Your task to perform on an android device: toggle sleep mode Image 0: 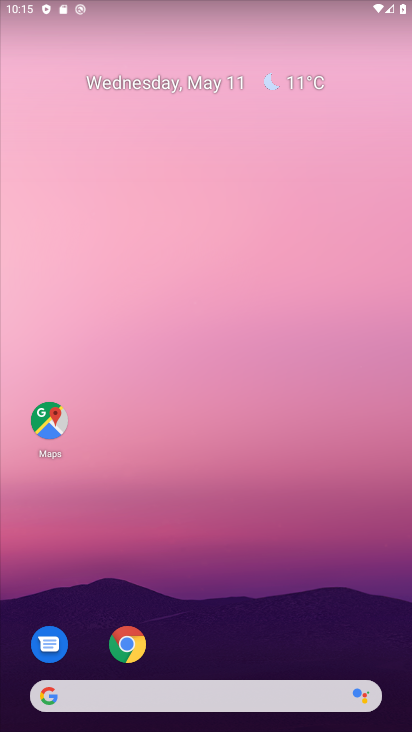
Step 0: drag from (354, 657) to (1, 161)
Your task to perform on an android device: toggle sleep mode Image 1: 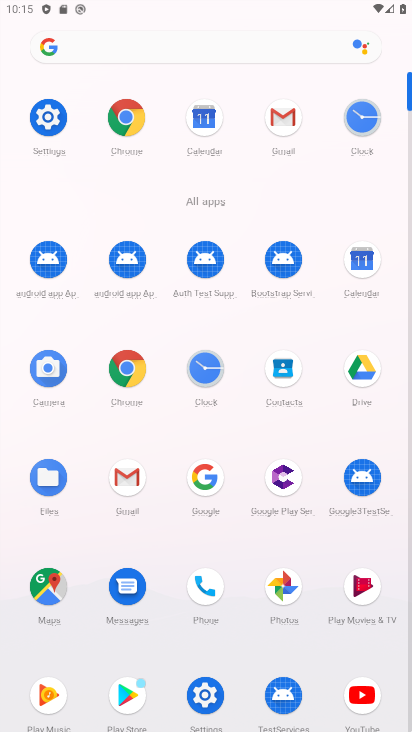
Step 1: click (47, 156)
Your task to perform on an android device: toggle sleep mode Image 2: 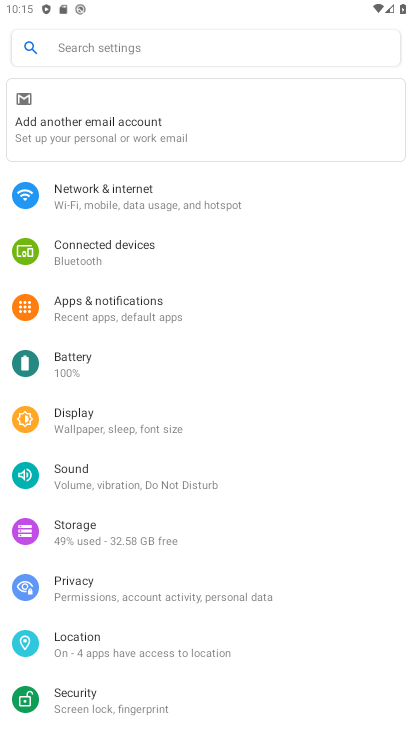
Step 2: click (70, 433)
Your task to perform on an android device: toggle sleep mode Image 3: 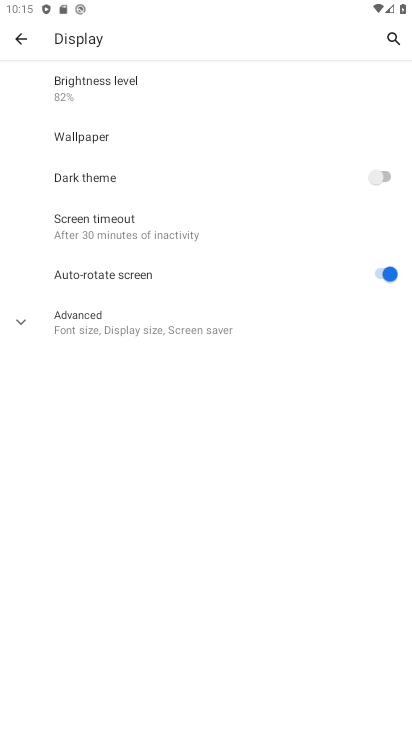
Step 3: click (27, 328)
Your task to perform on an android device: toggle sleep mode Image 4: 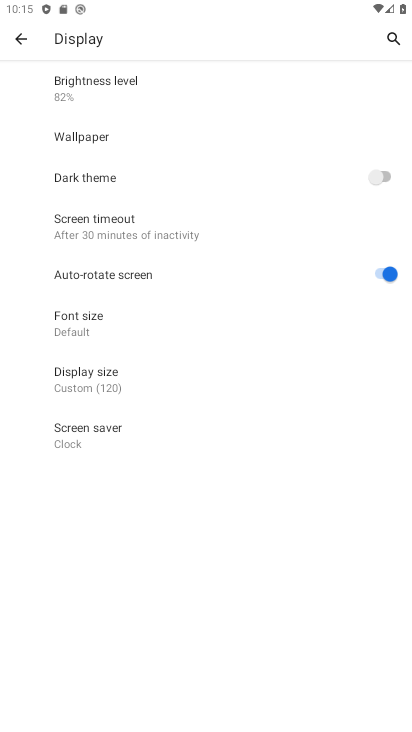
Step 4: task complete